Your task to perform on an android device: turn off notifications in google photos Image 0: 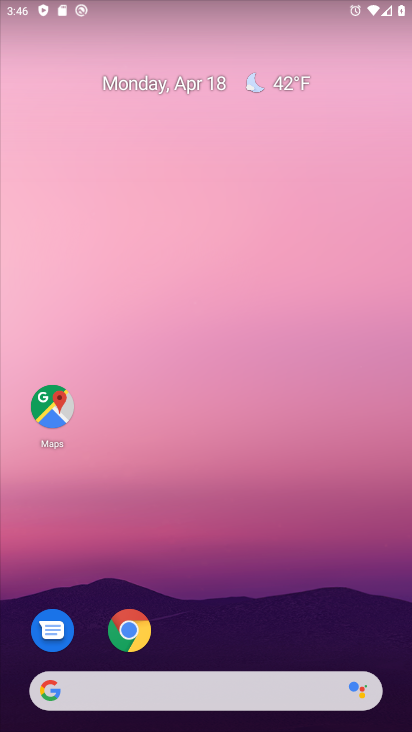
Step 0: drag from (158, 653) to (205, 232)
Your task to perform on an android device: turn off notifications in google photos Image 1: 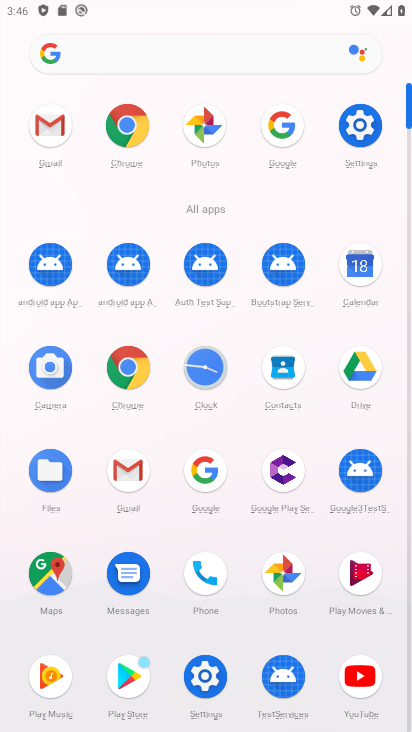
Step 1: click (265, 585)
Your task to perform on an android device: turn off notifications in google photos Image 2: 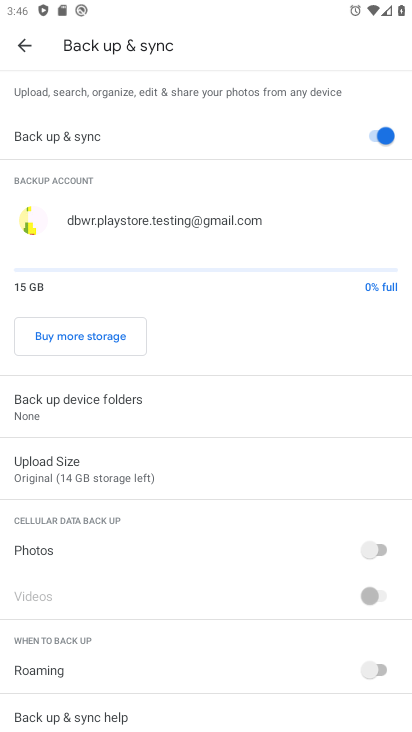
Step 2: click (34, 53)
Your task to perform on an android device: turn off notifications in google photos Image 3: 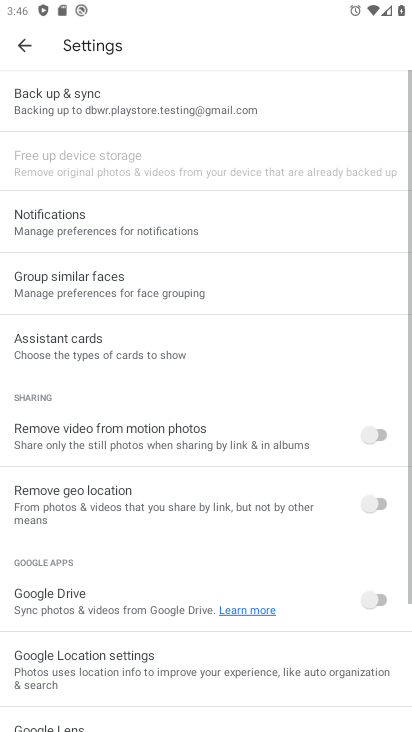
Step 3: click (118, 229)
Your task to perform on an android device: turn off notifications in google photos Image 4: 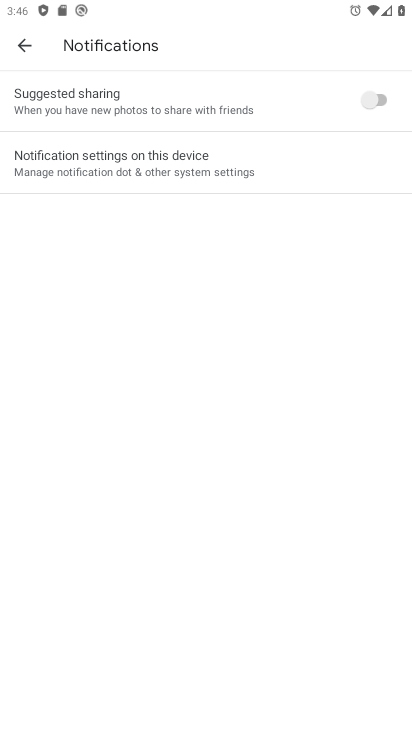
Step 4: click (208, 186)
Your task to perform on an android device: turn off notifications in google photos Image 5: 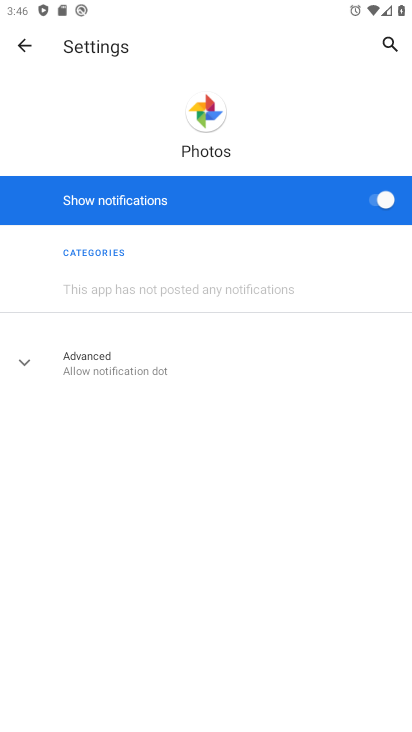
Step 5: click (364, 193)
Your task to perform on an android device: turn off notifications in google photos Image 6: 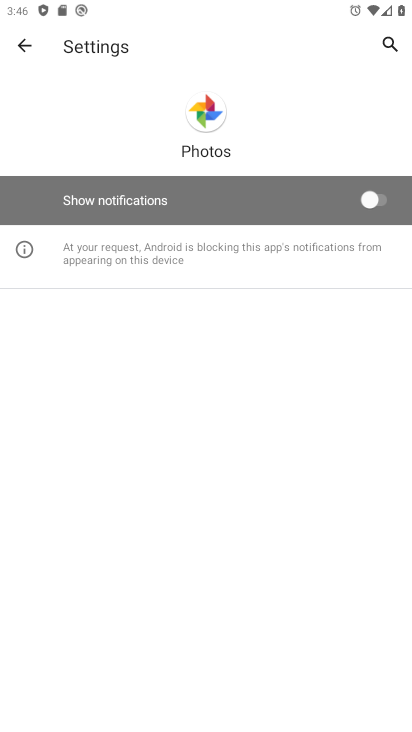
Step 6: task complete